Your task to perform on an android device: Turn off the flashlight Image 0: 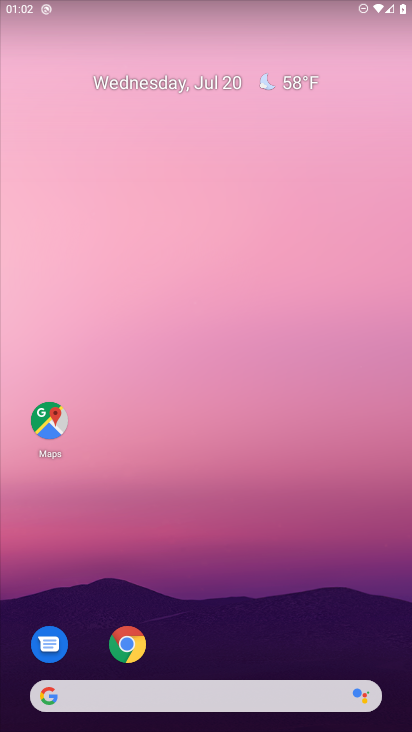
Step 0: drag from (232, 16) to (231, 491)
Your task to perform on an android device: Turn off the flashlight Image 1: 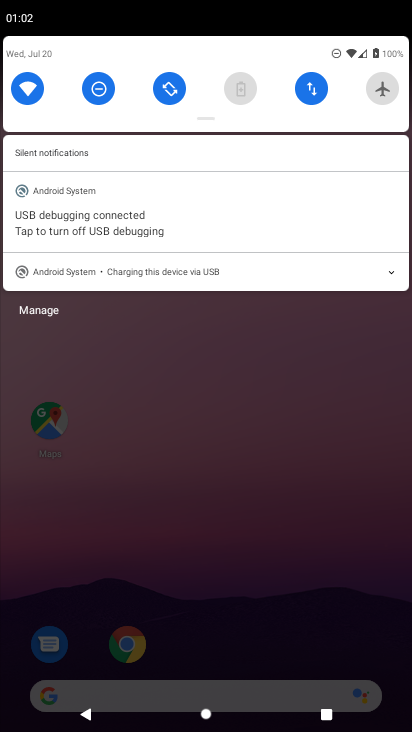
Step 1: click (141, 491)
Your task to perform on an android device: Turn off the flashlight Image 2: 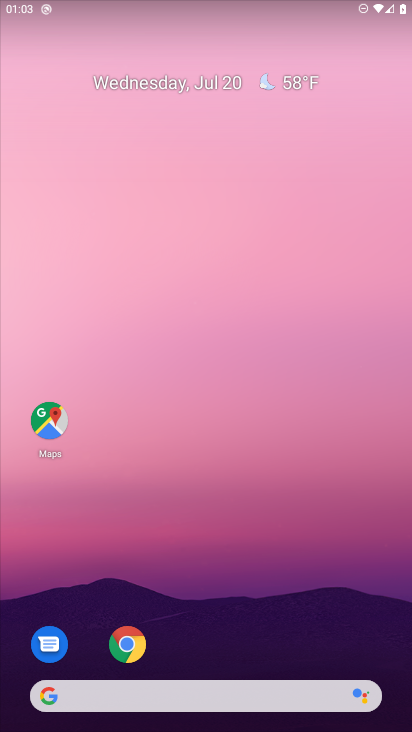
Step 2: task complete